Your task to perform on an android device: turn notification dots off Image 0: 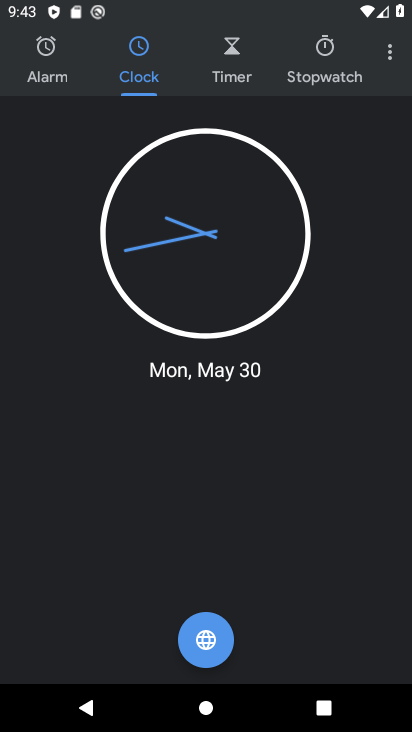
Step 0: press home button
Your task to perform on an android device: turn notification dots off Image 1: 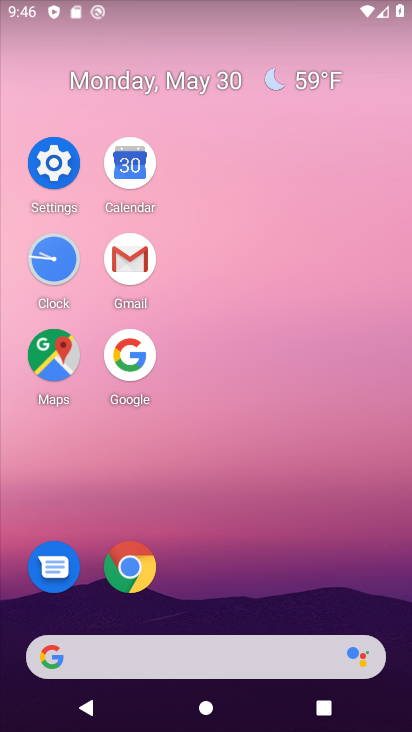
Step 1: click (52, 150)
Your task to perform on an android device: turn notification dots off Image 2: 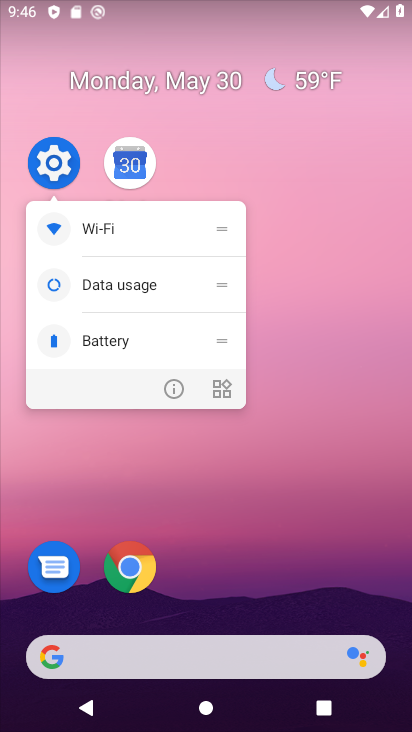
Step 2: click (64, 162)
Your task to perform on an android device: turn notification dots off Image 3: 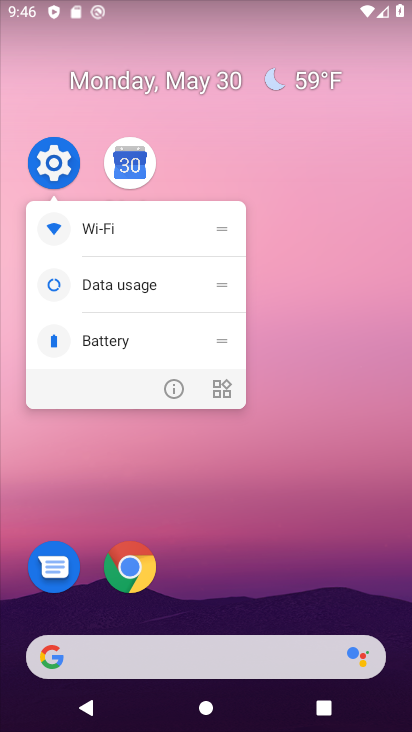
Step 3: click (53, 137)
Your task to perform on an android device: turn notification dots off Image 4: 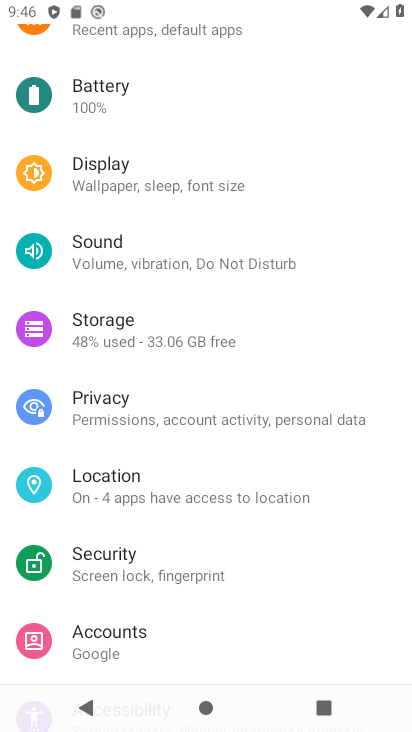
Step 4: drag from (240, 223) to (260, 635)
Your task to perform on an android device: turn notification dots off Image 5: 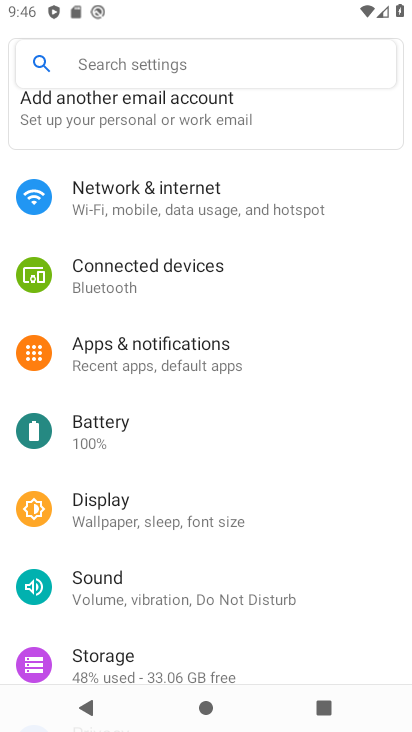
Step 5: click (144, 357)
Your task to perform on an android device: turn notification dots off Image 6: 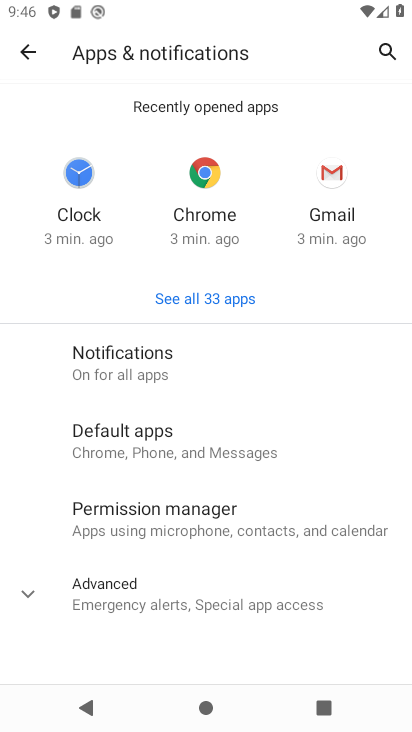
Step 6: click (185, 342)
Your task to perform on an android device: turn notification dots off Image 7: 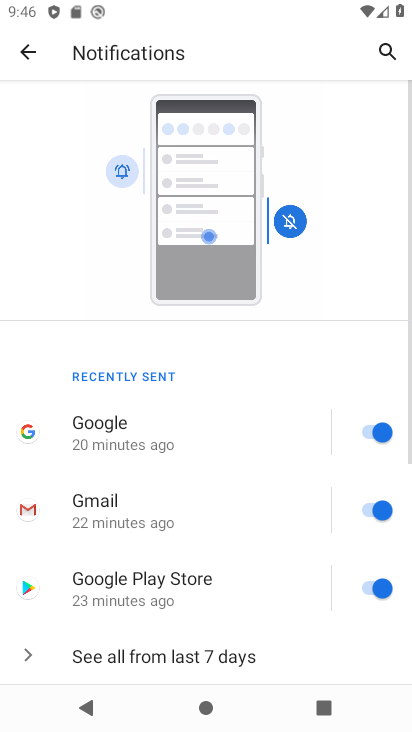
Step 7: drag from (218, 580) to (198, 169)
Your task to perform on an android device: turn notification dots off Image 8: 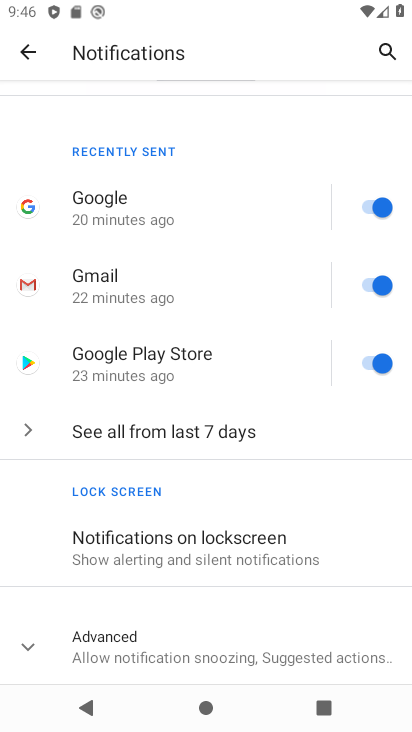
Step 8: click (207, 554)
Your task to perform on an android device: turn notification dots off Image 9: 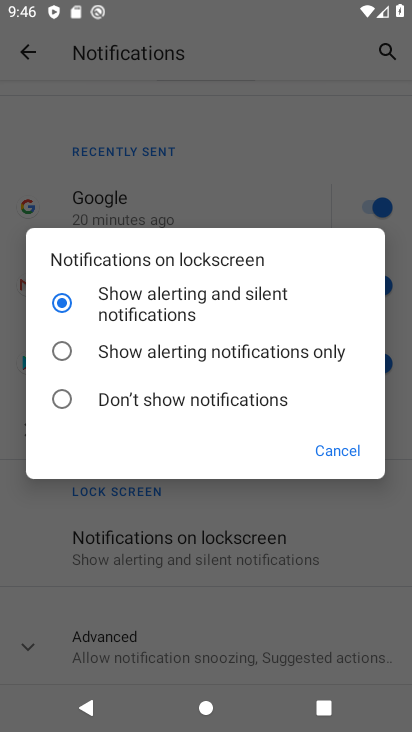
Step 9: click (318, 450)
Your task to perform on an android device: turn notification dots off Image 10: 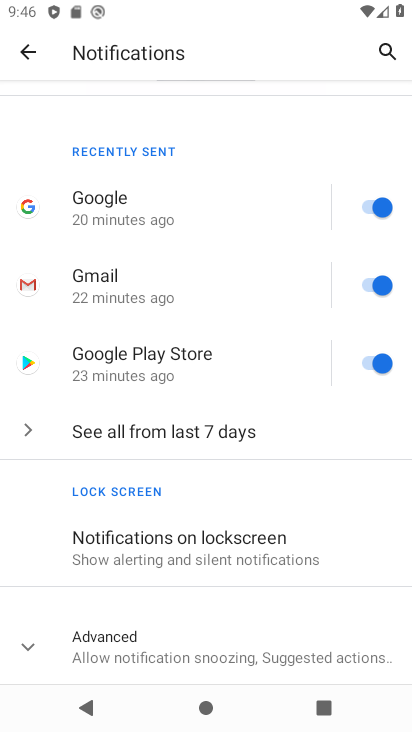
Step 10: click (262, 634)
Your task to perform on an android device: turn notification dots off Image 11: 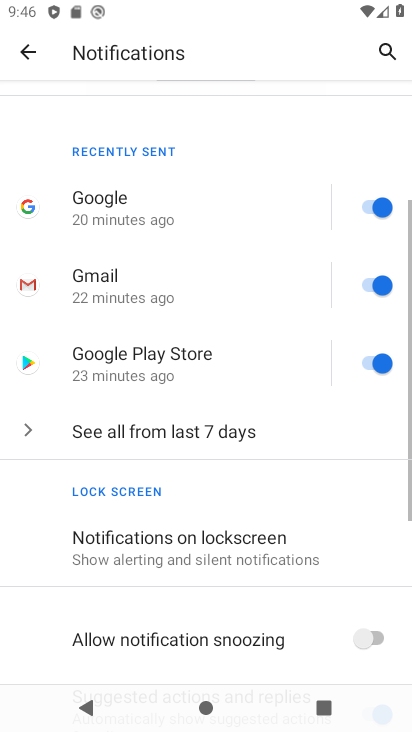
Step 11: drag from (279, 625) to (260, 198)
Your task to perform on an android device: turn notification dots off Image 12: 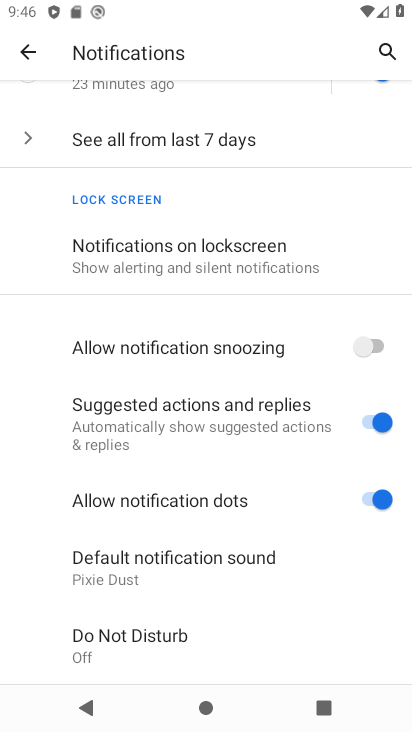
Step 12: click (368, 498)
Your task to perform on an android device: turn notification dots off Image 13: 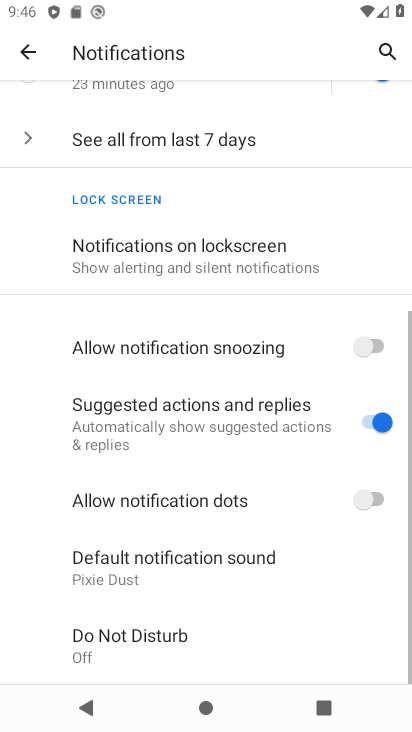
Step 13: task complete